Your task to perform on an android device: show emergency info Image 0: 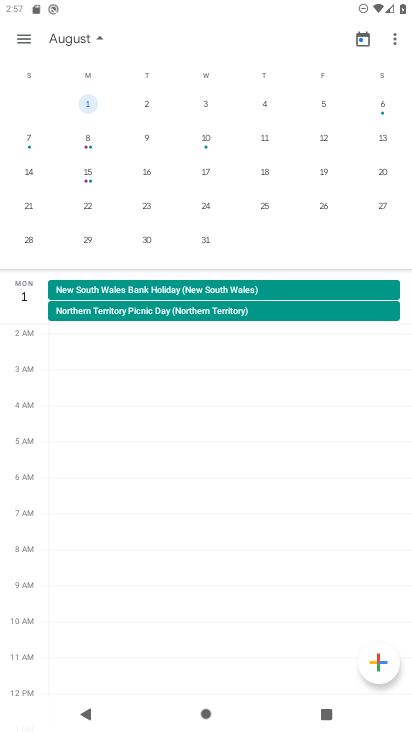
Step 0: press home button
Your task to perform on an android device: show emergency info Image 1: 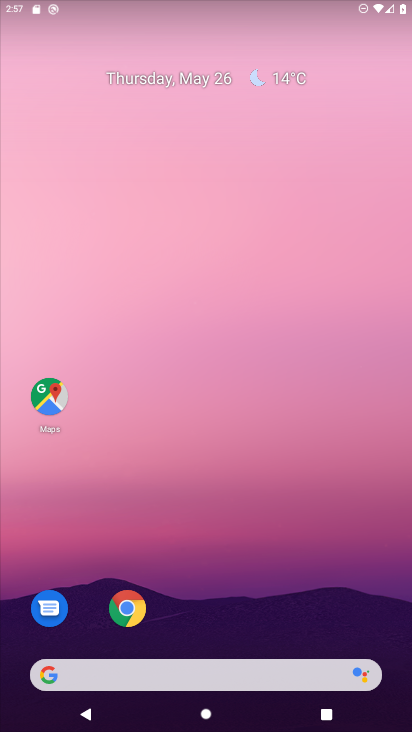
Step 1: drag from (298, 457) to (353, 60)
Your task to perform on an android device: show emergency info Image 2: 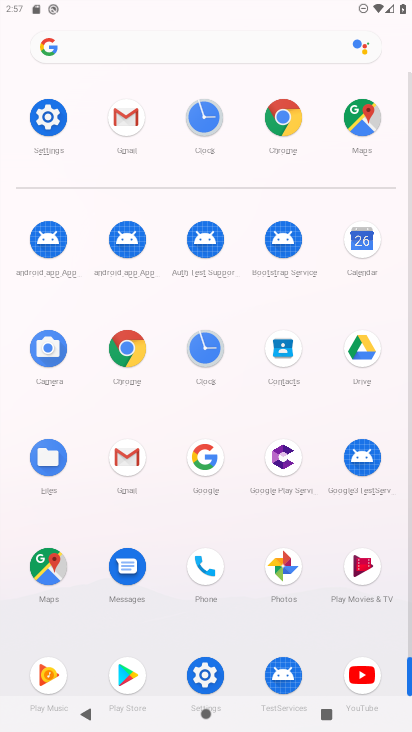
Step 2: click (55, 102)
Your task to perform on an android device: show emergency info Image 3: 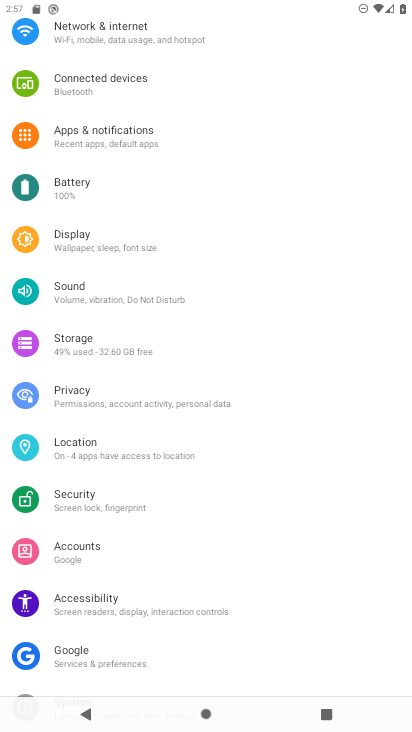
Step 3: drag from (148, 657) to (182, 208)
Your task to perform on an android device: show emergency info Image 4: 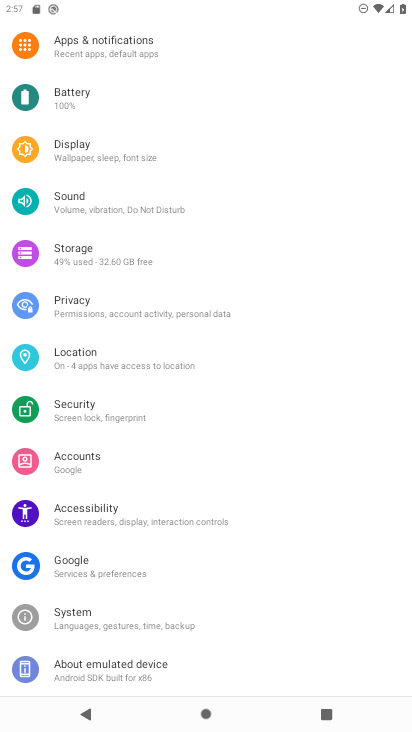
Step 4: click (93, 672)
Your task to perform on an android device: show emergency info Image 5: 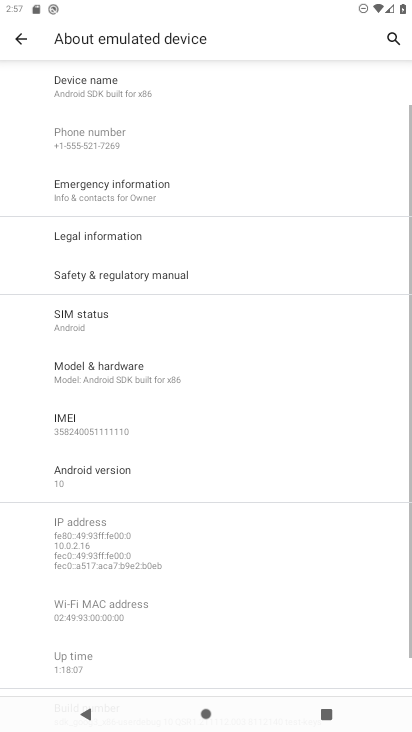
Step 5: click (121, 197)
Your task to perform on an android device: show emergency info Image 6: 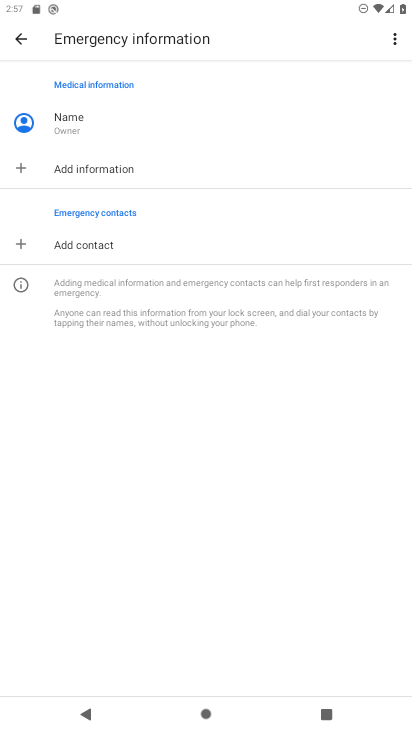
Step 6: task complete